Your task to perform on an android device: manage bookmarks in the chrome app Image 0: 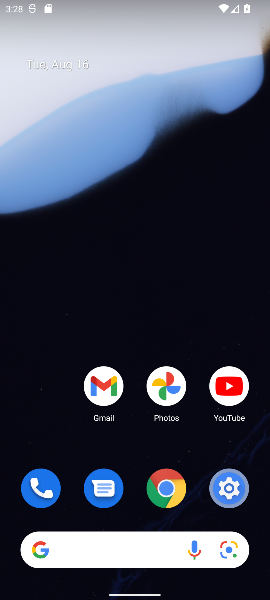
Step 0: drag from (62, 434) to (83, 140)
Your task to perform on an android device: manage bookmarks in the chrome app Image 1: 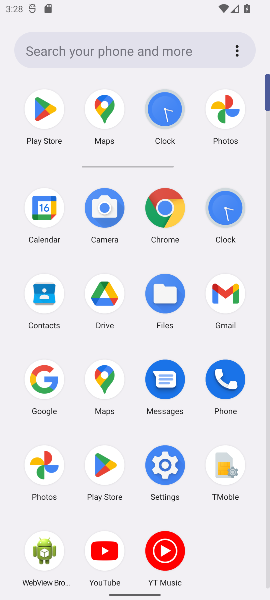
Step 1: click (159, 224)
Your task to perform on an android device: manage bookmarks in the chrome app Image 2: 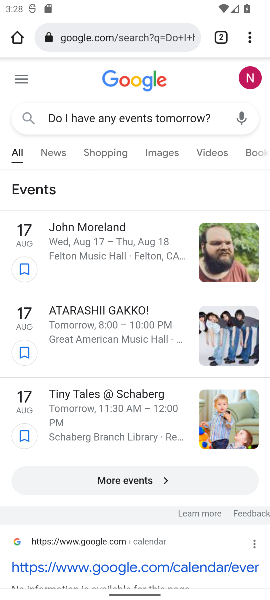
Step 2: task complete